Your task to perform on an android device: toggle wifi Image 0: 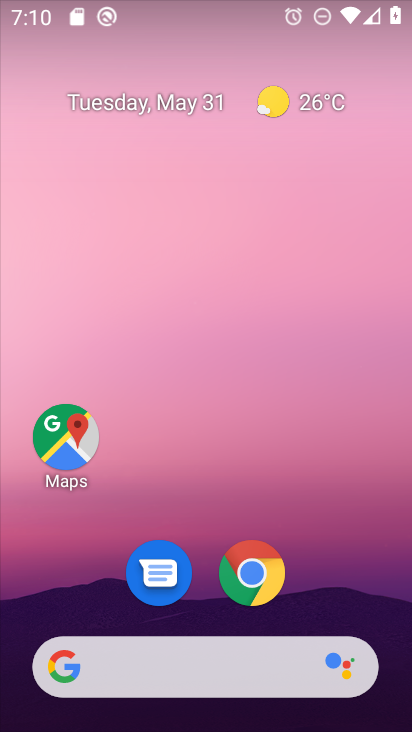
Step 0: drag from (394, 641) to (255, 78)
Your task to perform on an android device: toggle wifi Image 1: 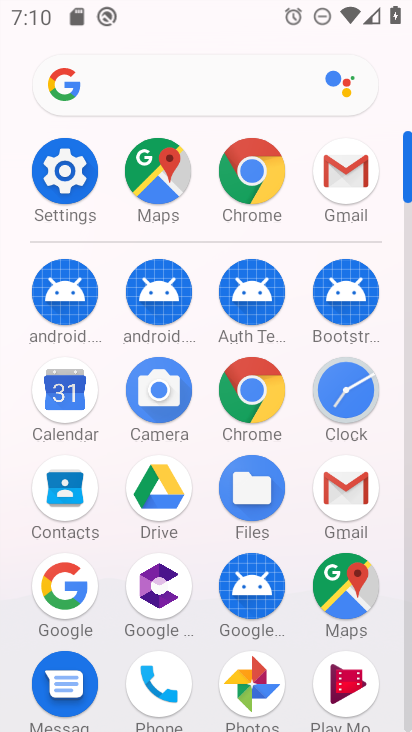
Step 1: press home button
Your task to perform on an android device: toggle wifi Image 2: 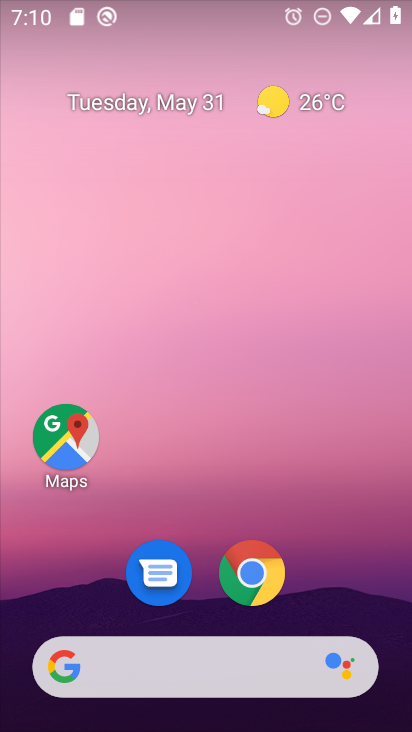
Step 2: drag from (212, 6) to (270, 439)
Your task to perform on an android device: toggle wifi Image 3: 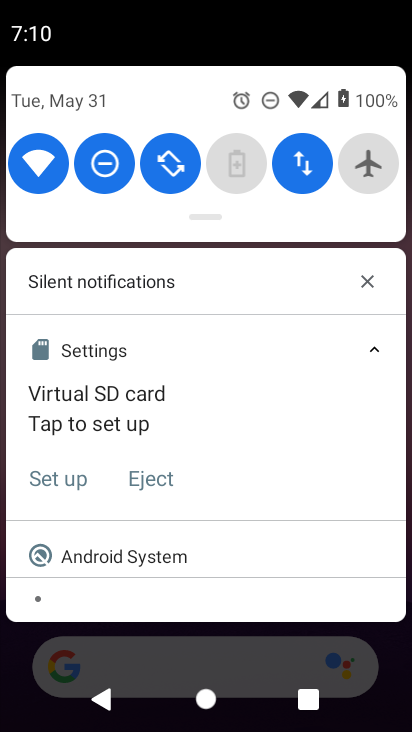
Step 3: click (39, 158)
Your task to perform on an android device: toggle wifi Image 4: 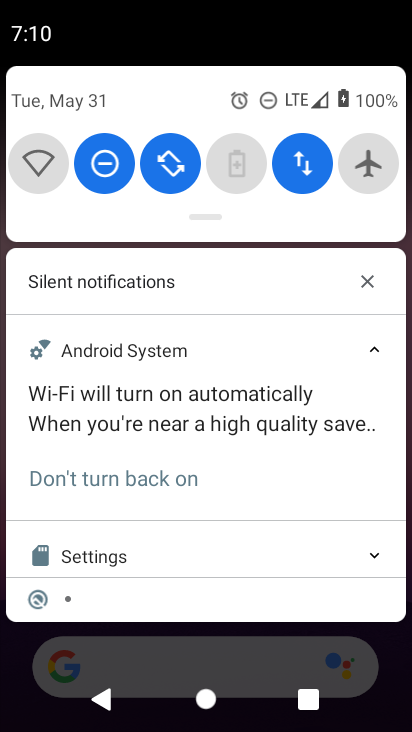
Step 4: task complete